Your task to perform on an android device: Go to privacy settings Image 0: 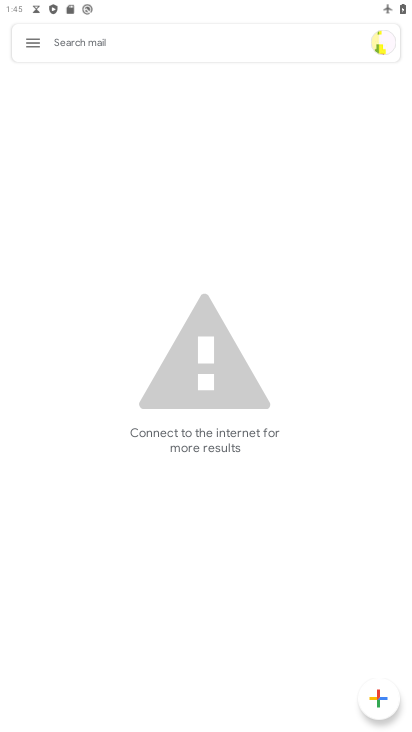
Step 0: press home button
Your task to perform on an android device: Go to privacy settings Image 1: 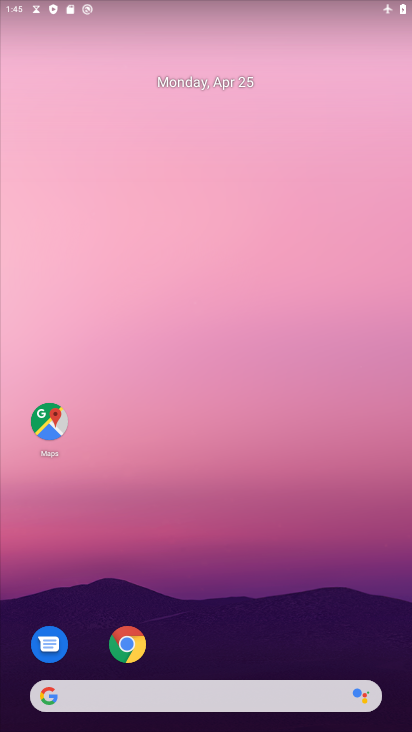
Step 1: drag from (372, 639) to (367, 84)
Your task to perform on an android device: Go to privacy settings Image 2: 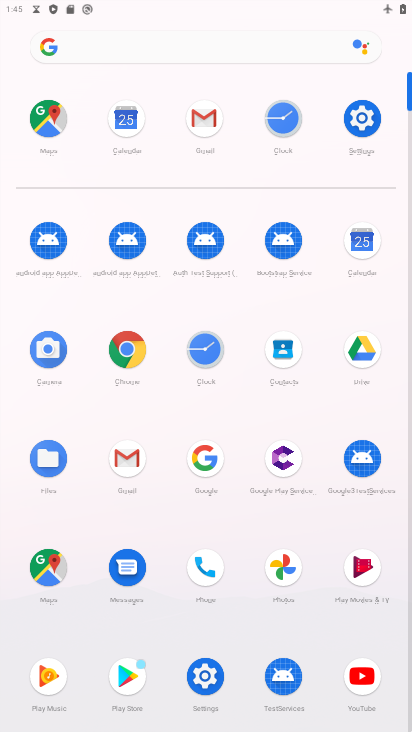
Step 2: click (369, 122)
Your task to perform on an android device: Go to privacy settings Image 3: 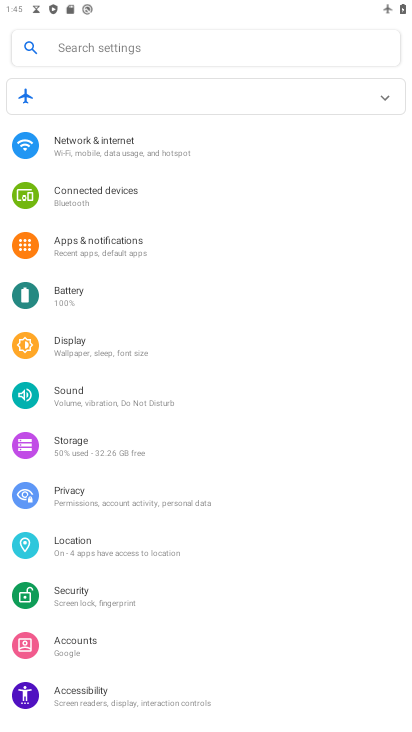
Step 3: click (86, 501)
Your task to perform on an android device: Go to privacy settings Image 4: 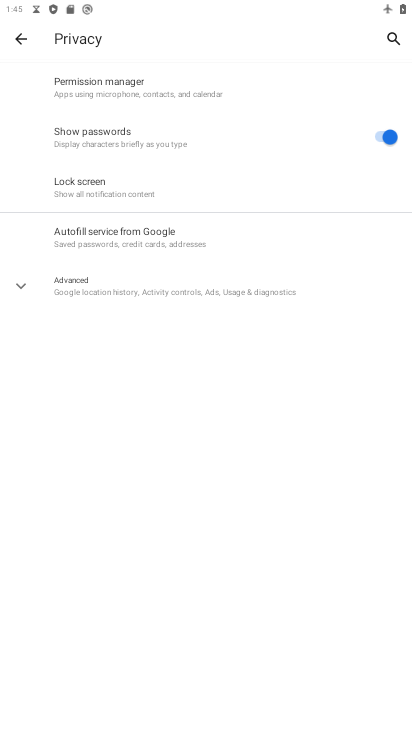
Step 4: task complete